Your task to perform on an android device: Go to Reddit.com Image 0: 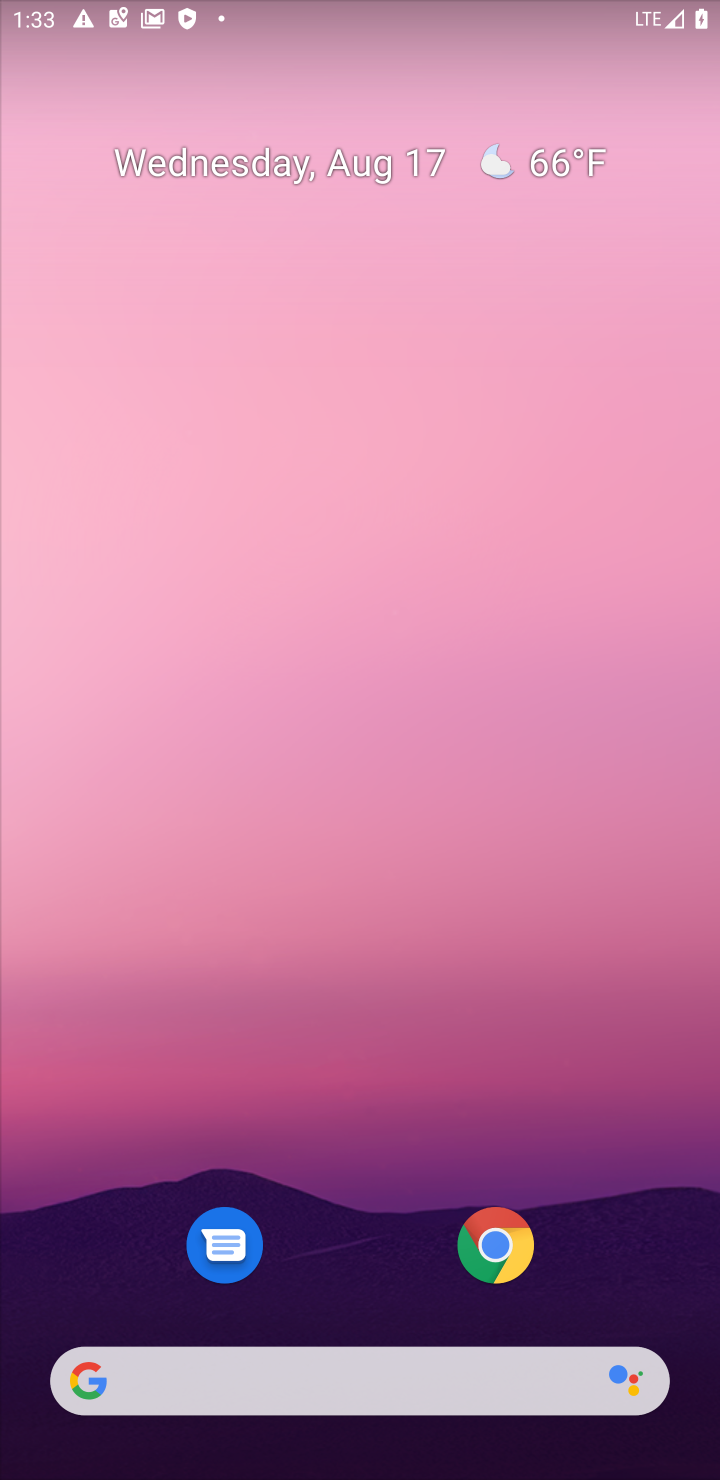
Step 0: click (494, 1241)
Your task to perform on an android device: Go to Reddit.com Image 1: 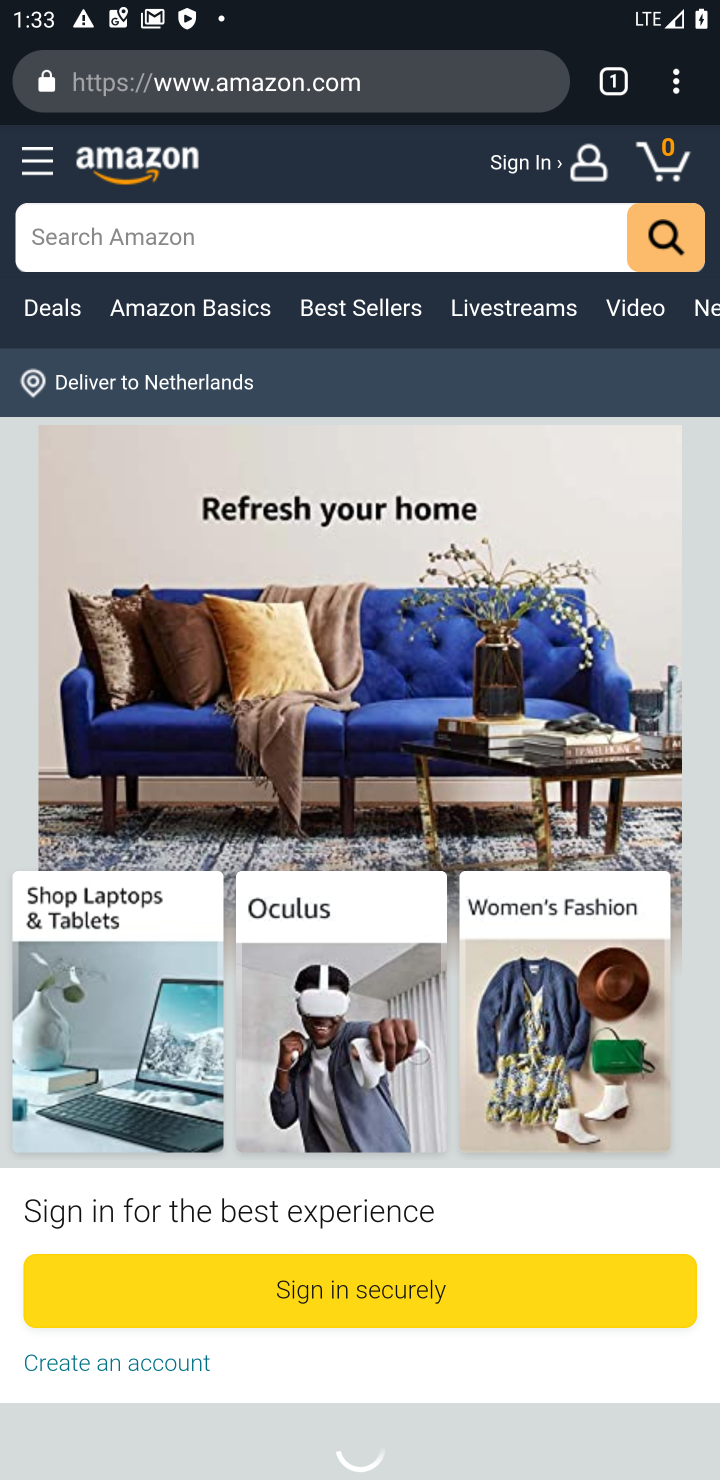
Step 1: drag from (677, 89) to (386, 251)
Your task to perform on an android device: Go to Reddit.com Image 2: 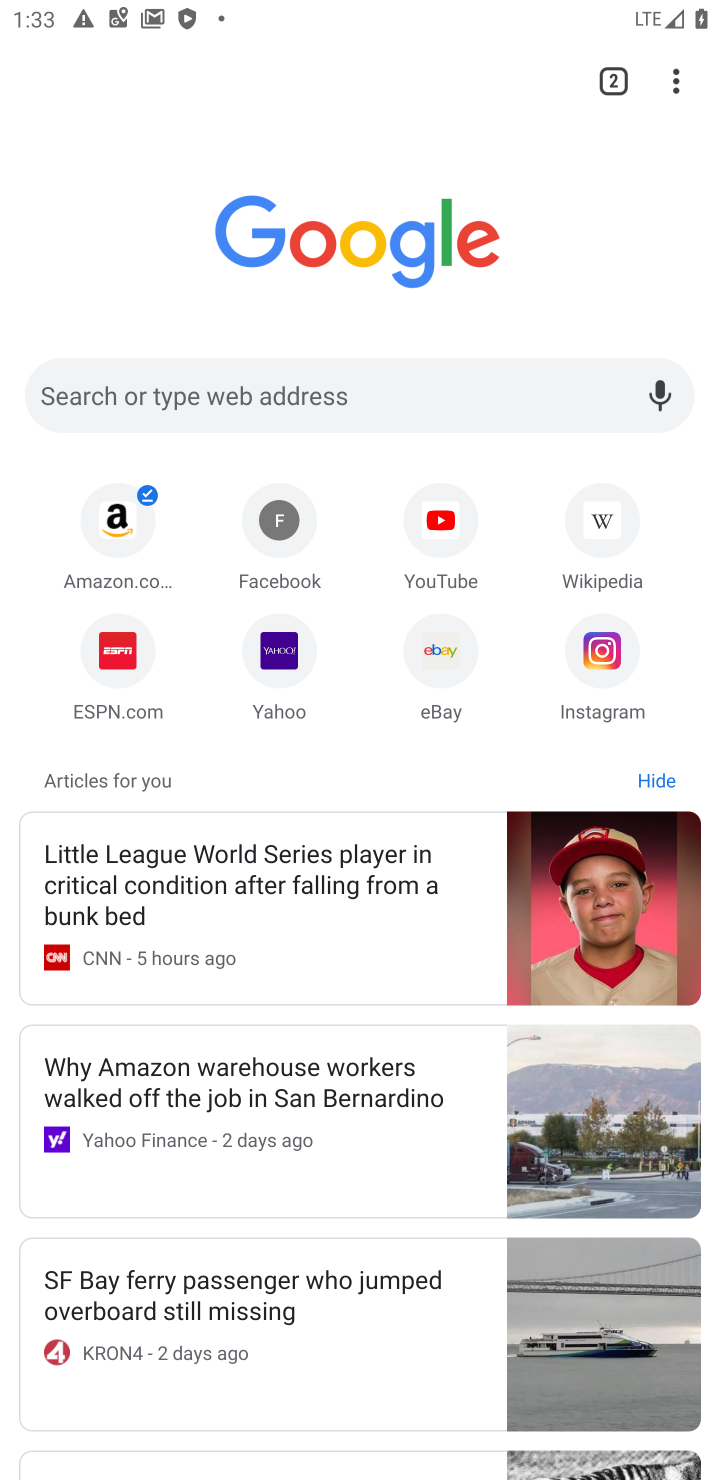
Step 2: click (450, 399)
Your task to perform on an android device: Go to Reddit.com Image 3: 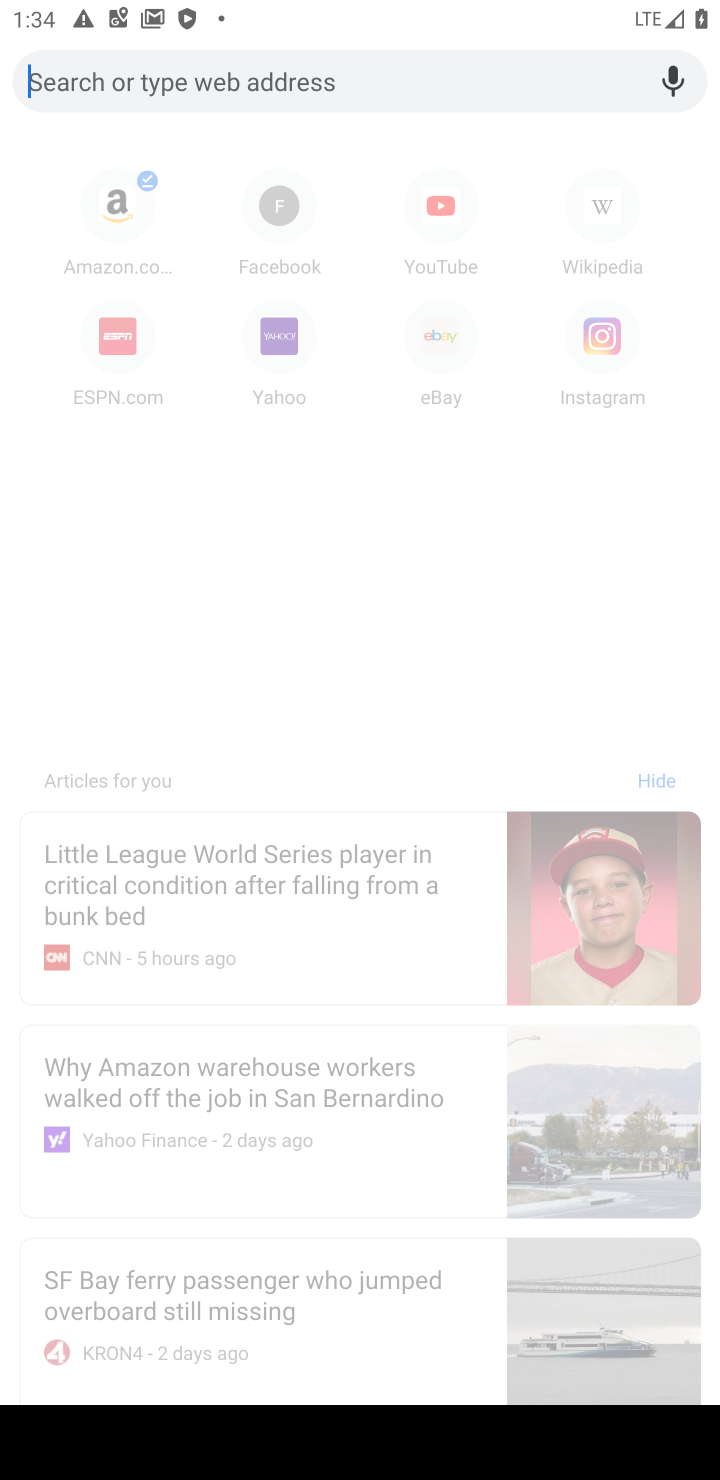
Step 3: type "Reddit.com"
Your task to perform on an android device: Go to Reddit.com Image 4: 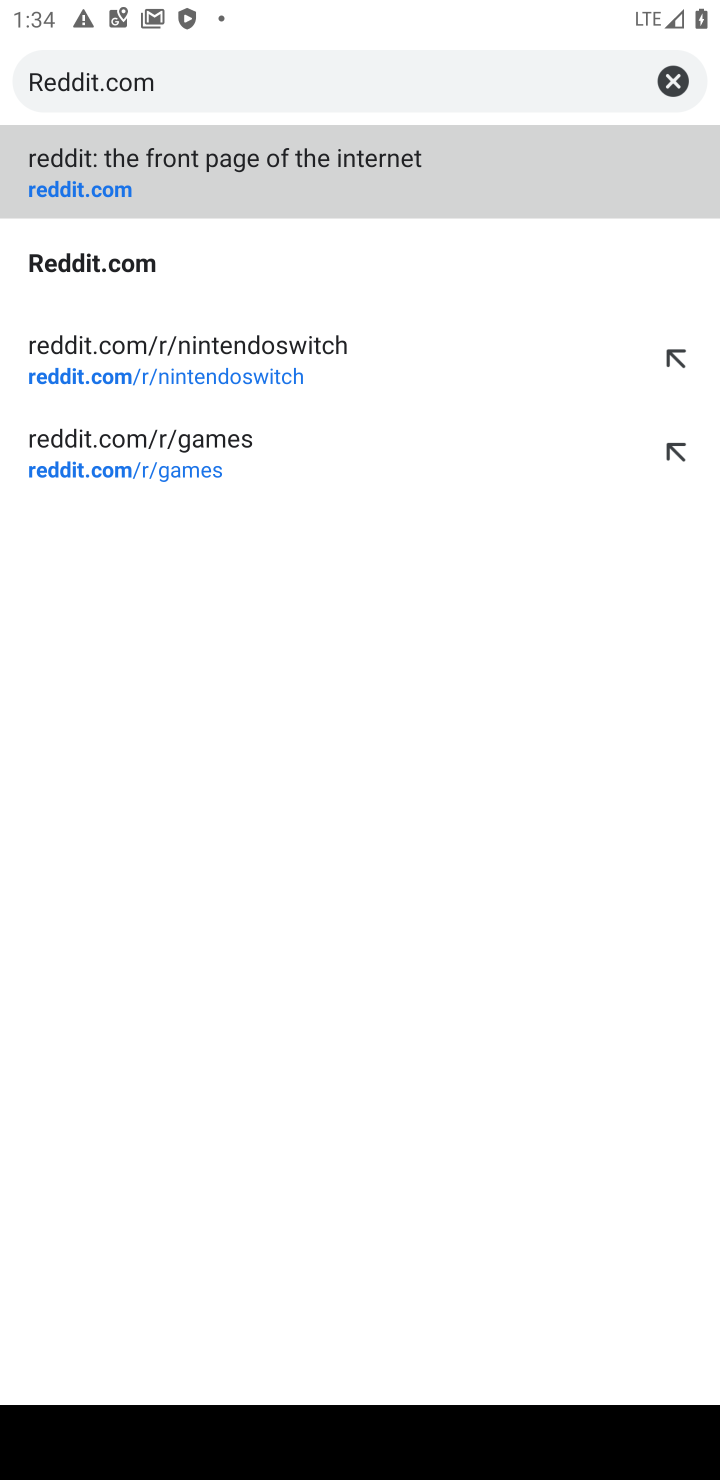
Step 4: type ""
Your task to perform on an android device: Go to Reddit.com Image 5: 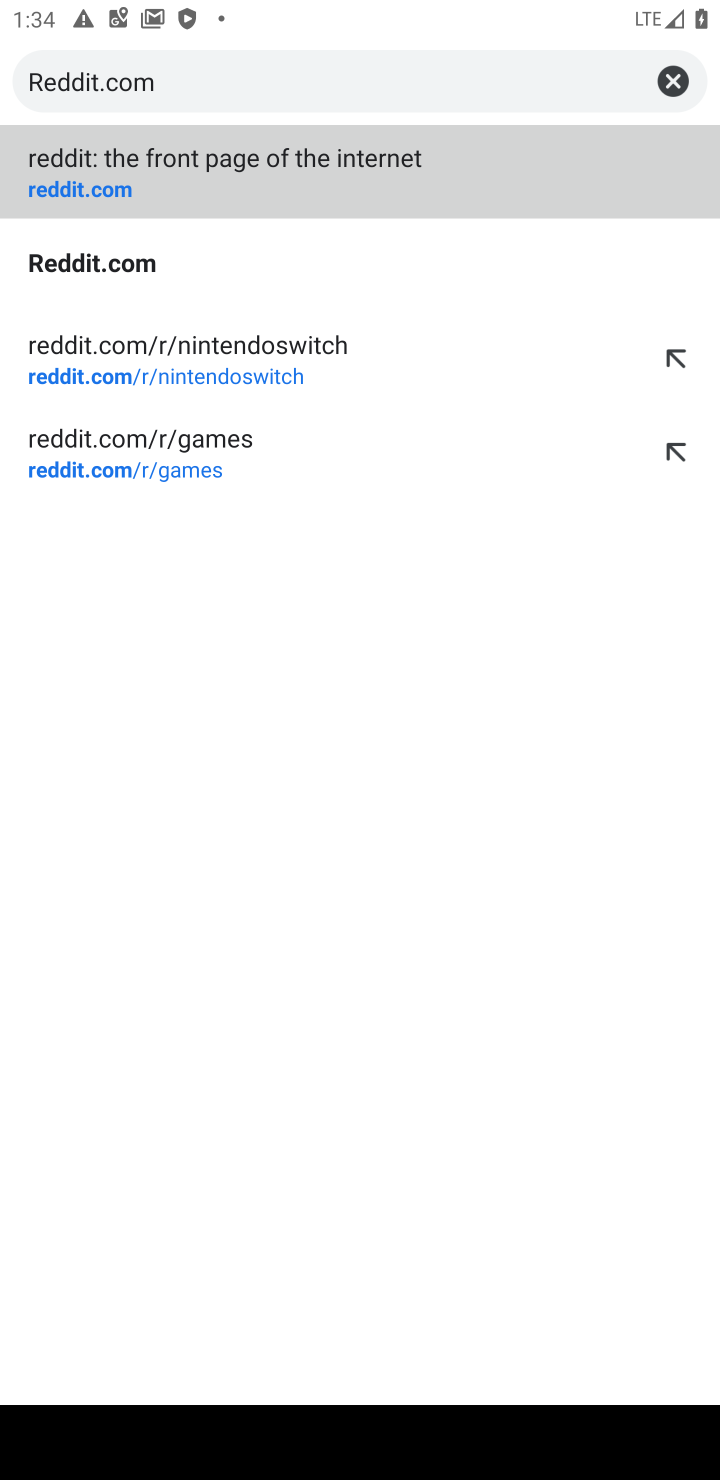
Step 5: click (109, 262)
Your task to perform on an android device: Go to Reddit.com Image 6: 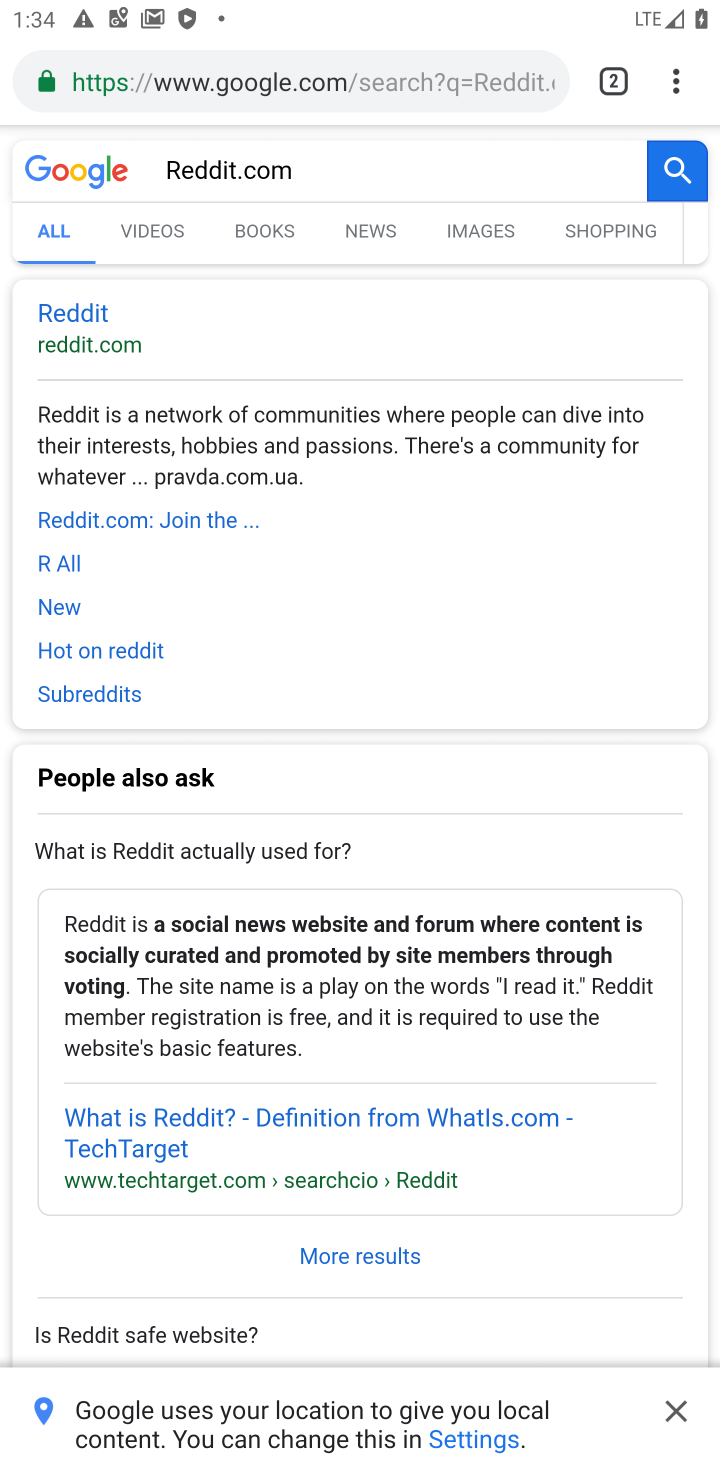
Step 6: click (54, 317)
Your task to perform on an android device: Go to Reddit.com Image 7: 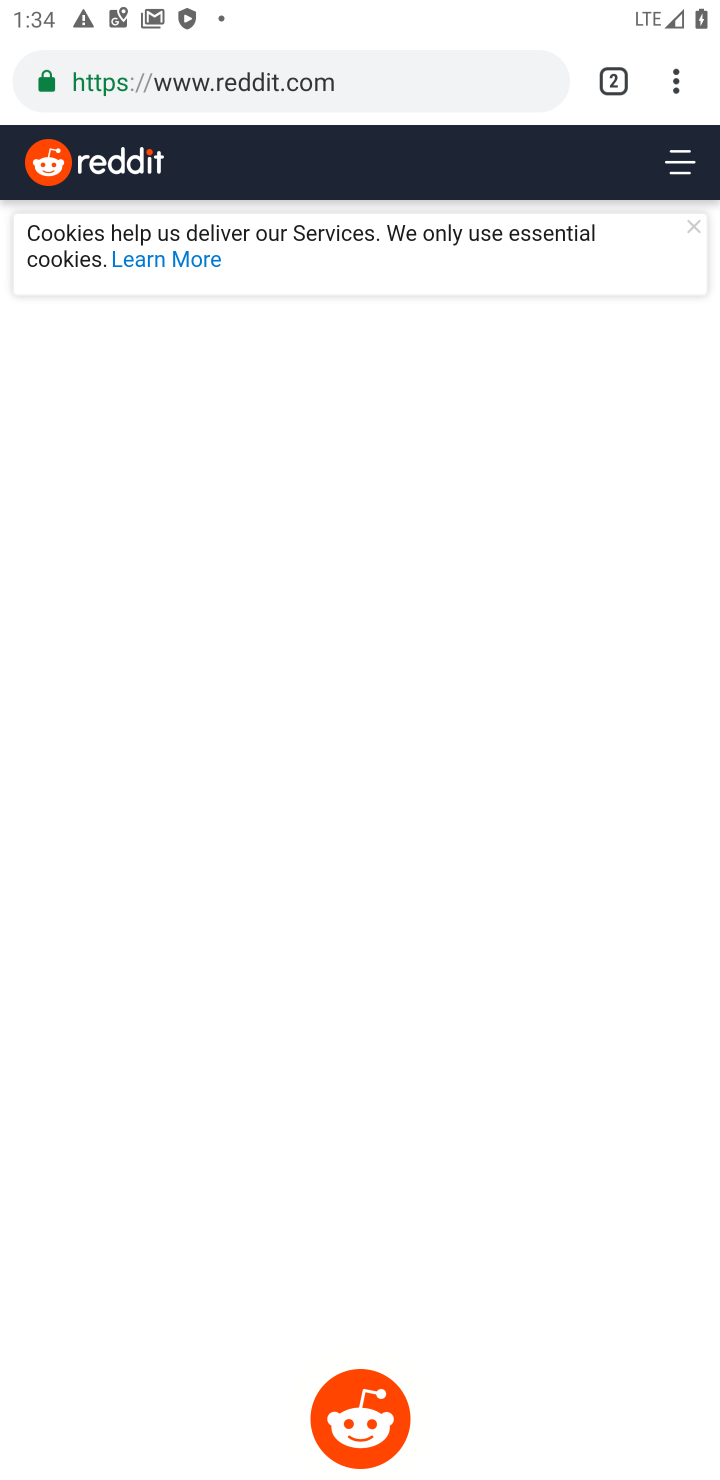
Step 7: task complete